Your task to perform on an android device: turn on the 24-hour format for clock Image 0: 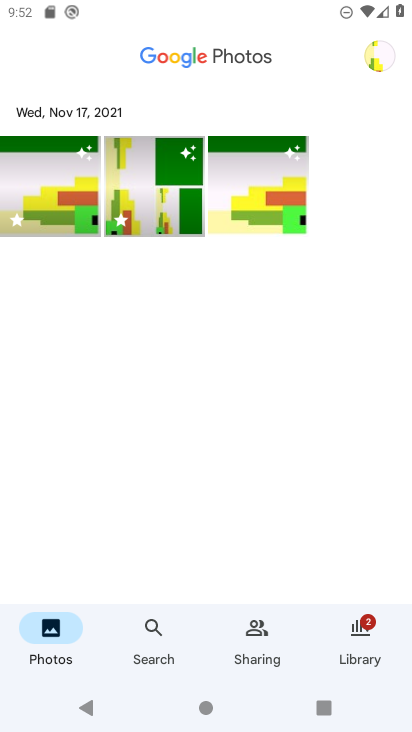
Step 0: press home button
Your task to perform on an android device: turn on the 24-hour format for clock Image 1: 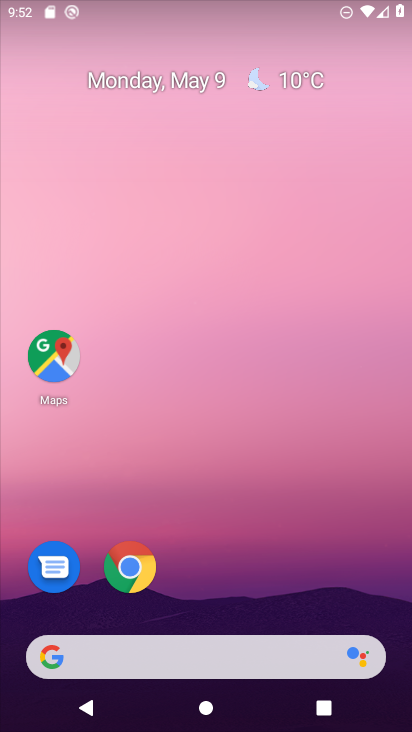
Step 1: drag from (237, 572) to (252, 31)
Your task to perform on an android device: turn on the 24-hour format for clock Image 2: 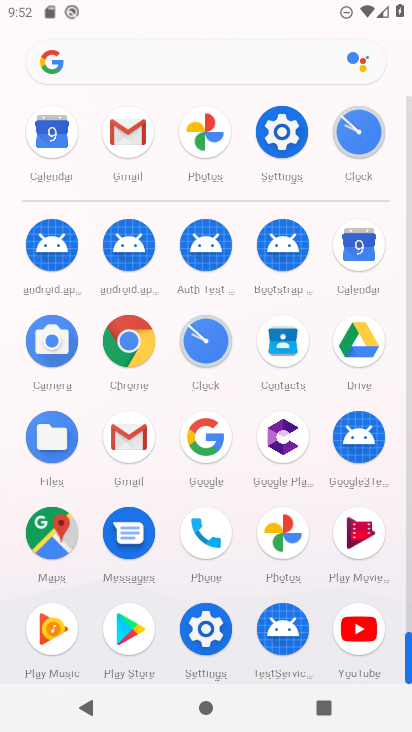
Step 2: click (343, 127)
Your task to perform on an android device: turn on the 24-hour format for clock Image 3: 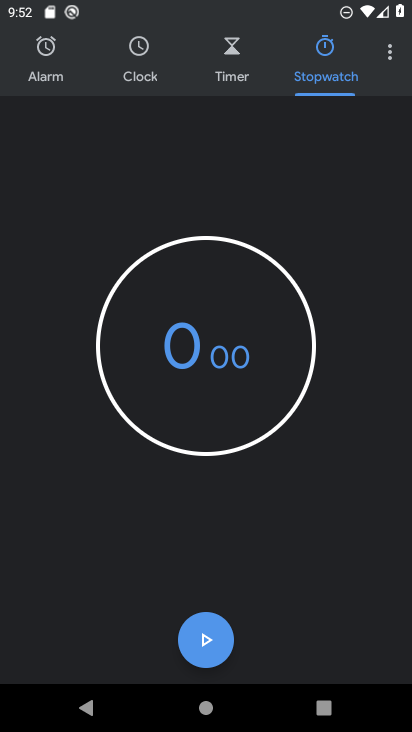
Step 3: click (390, 53)
Your task to perform on an android device: turn on the 24-hour format for clock Image 4: 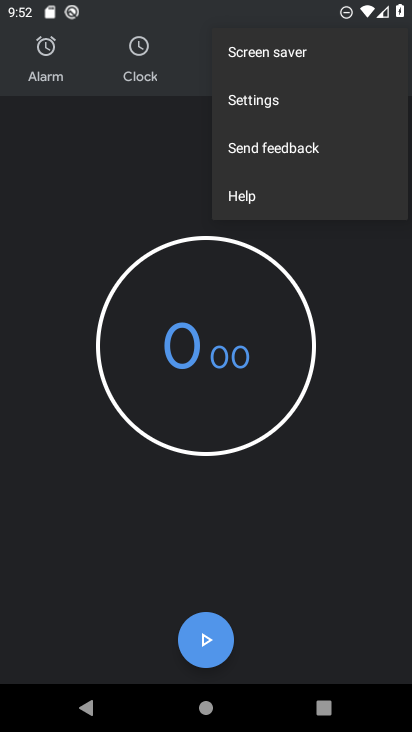
Step 4: click (326, 97)
Your task to perform on an android device: turn on the 24-hour format for clock Image 5: 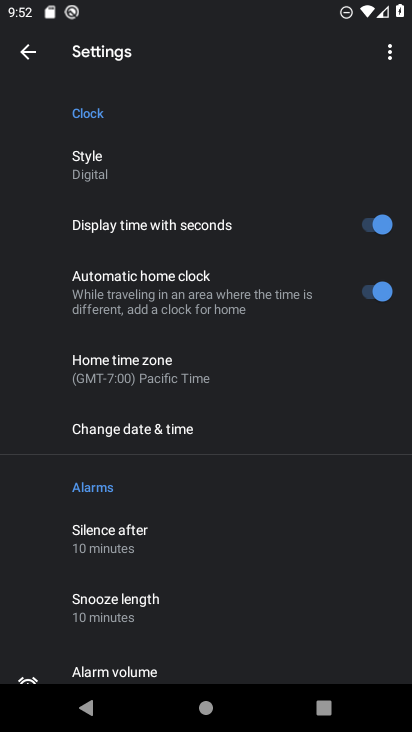
Step 5: drag from (278, 533) to (253, 282)
Your task to perform on an android device: turn on the 24-hour format for clock Image 6: 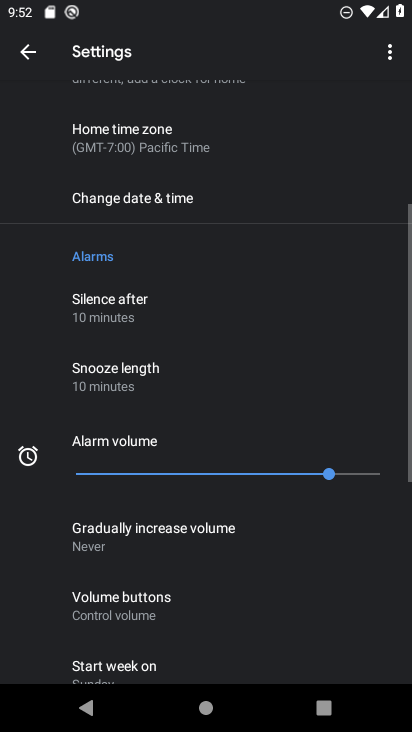
Step 6: click (248, 197)
Your task to perform on an android device: turn on the 24-hour format for clock Image 7: 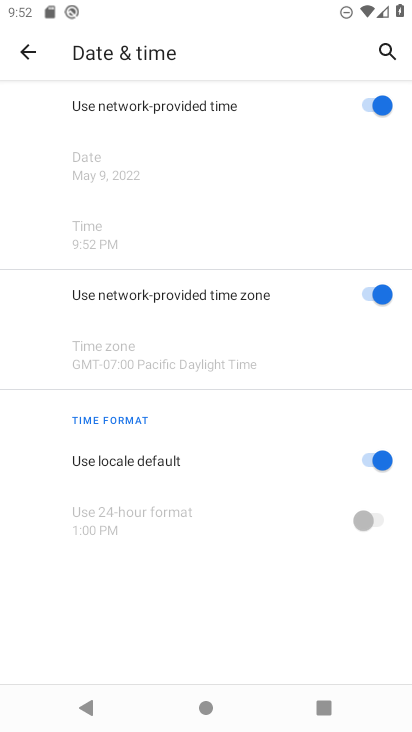
Step 7: click (364, 455)
Your task to perform on an android device: turn on the 24-hour format for clock Image 8: 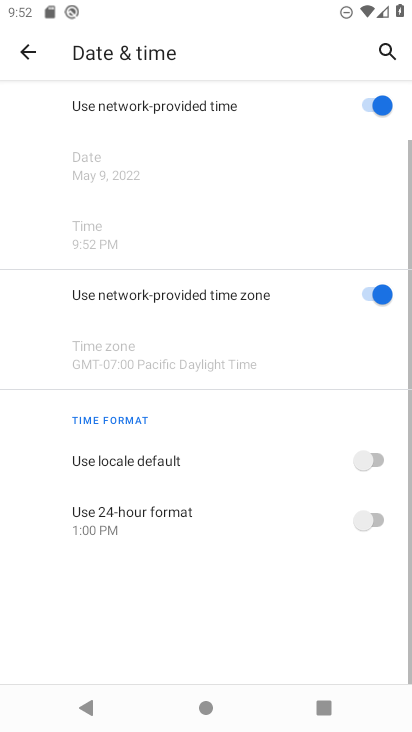
Step 8: click (369, 519)
Your task to perform on an android device: turn on the 24-hour format for clock Image 9: 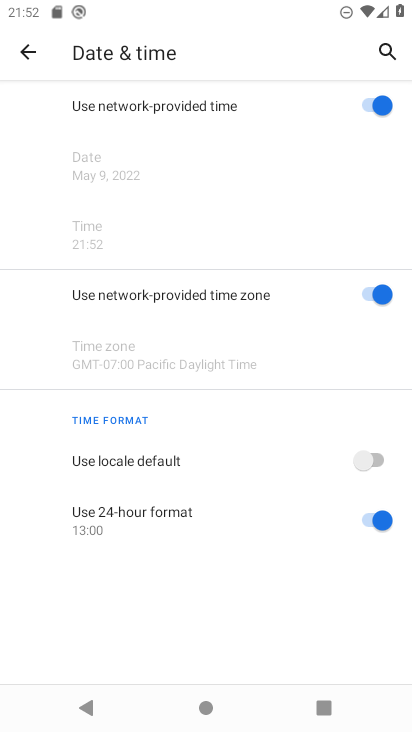
Step 9: task complete